Your task to perform on an android device: Search for Mexican restaurants on Maps Image 0: 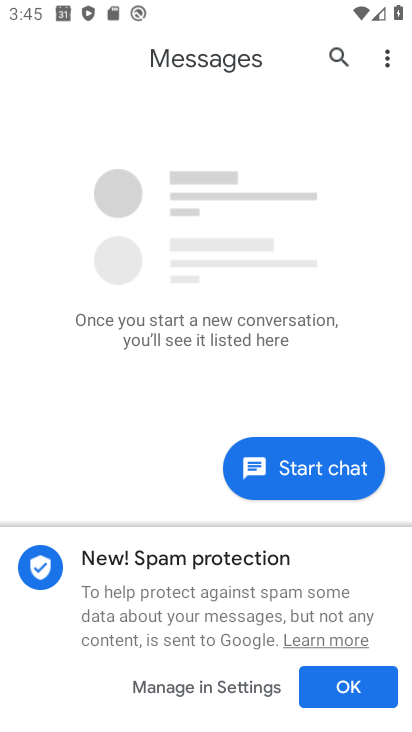
Step 0: press home button
Your task to perform on an android device: Search for Mexican restaurants on Maps Image 1: 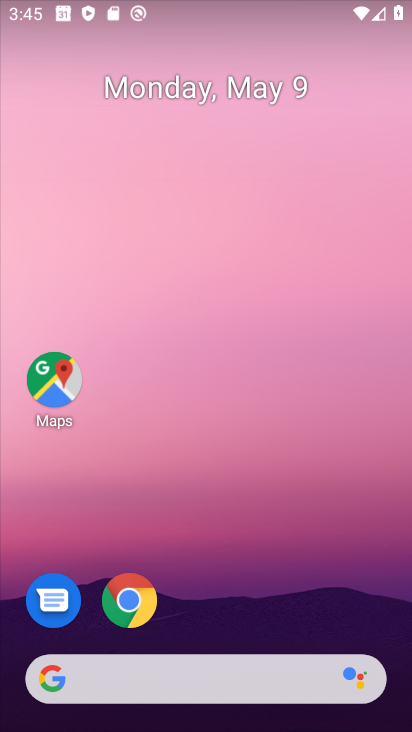
Step 1: drag from (305, 672) to (282, 11)
Your task to perform on an android device: Search for Mexican restaurants on Maps Image 2: 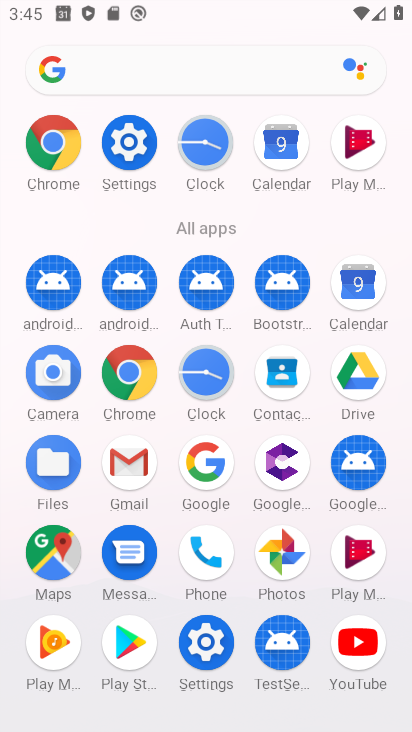
Step 2: click (60, 552)
Your task to perform on an android device: Search for Mexican restaurants on Maps Image 3: 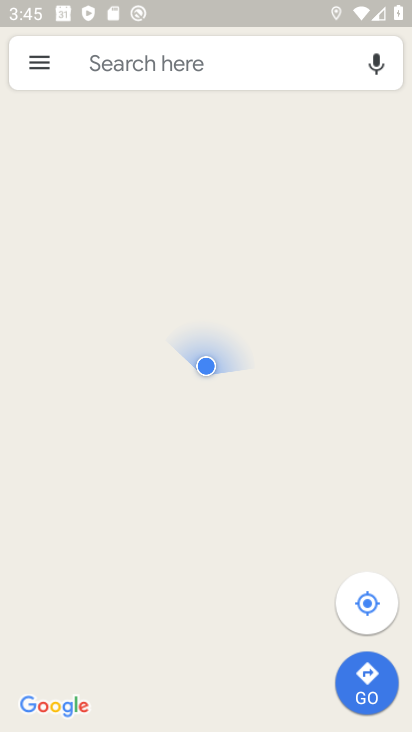
Step 3: click (213, 69)
Your task to perform on an android device: Search for Mexican restaurants on Maps Image 4: 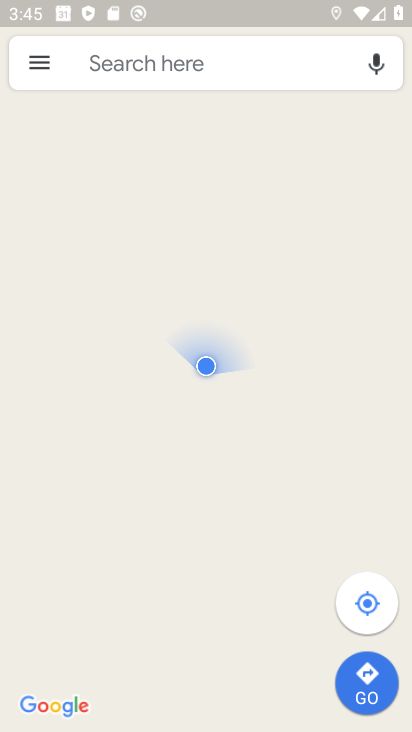
Step 4: click (213, 69)
Your task to perform on an android device: Search for Mexican restaurants on Maps Image 5: 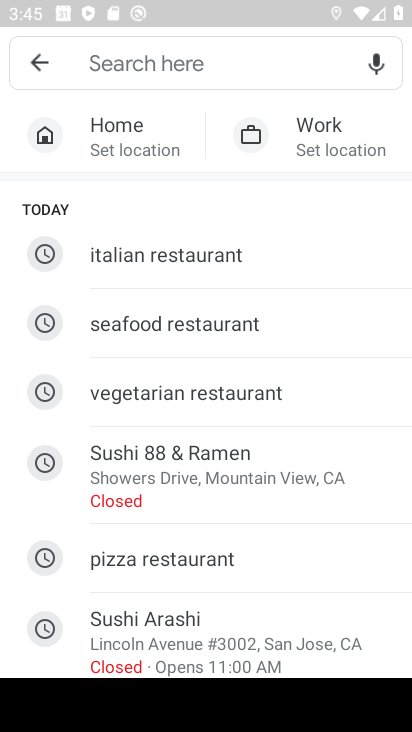
Step 5: type "mexican restaurant"
Your task to perform on an android device: Search for Mexican restaurants on Maps Image 6: 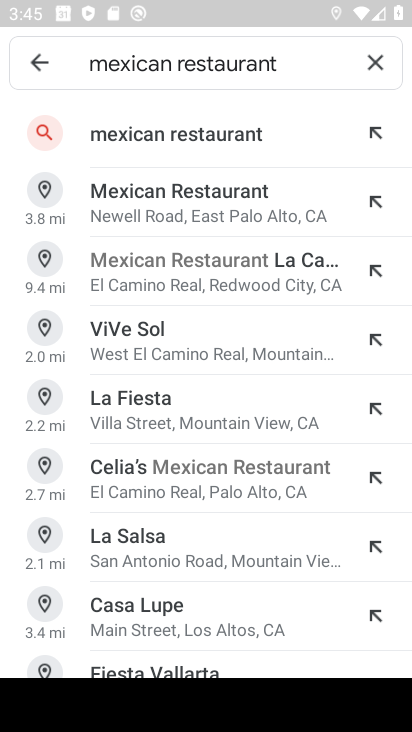
Step 6: click (212, 148)
Your task to perform on an android device: Search for Mexican restaurants on Maps Image 7: 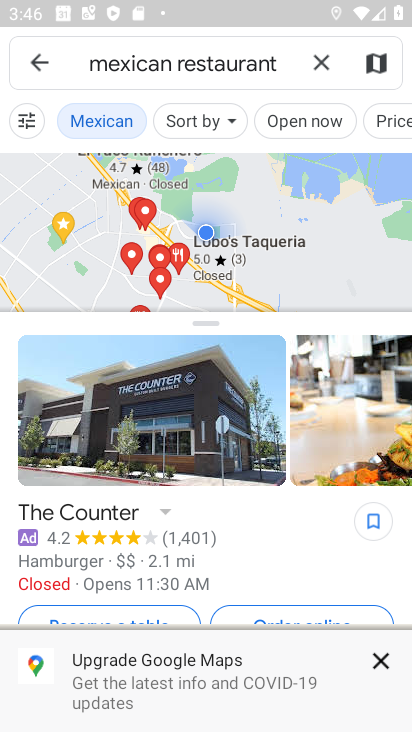
Step 7: task complete